Your task to perform on an android device: check out phone information Image 0: 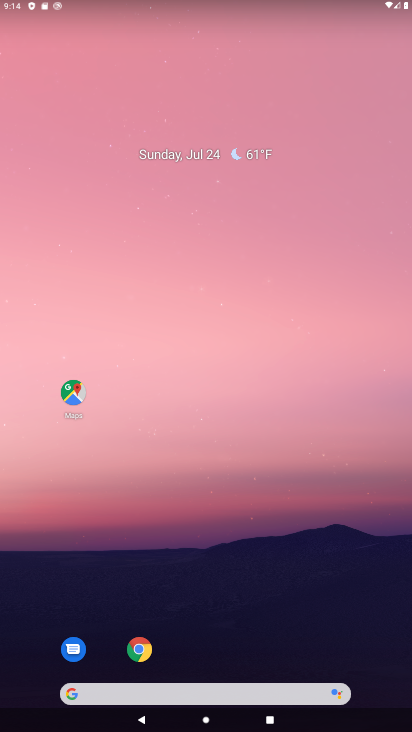
Step 0: drag from (281, 641) to (150, 2)
Your task to perform on an android device: check out phone information Image 1: 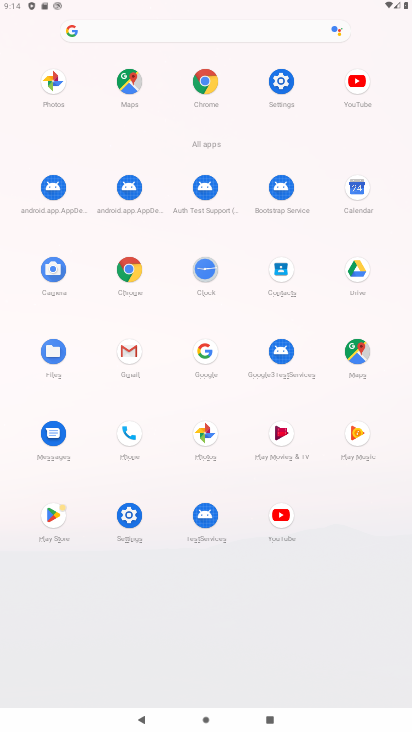
Step 1: click (132, 437)
Your task to perform on an android device: check out phone information Image 2: 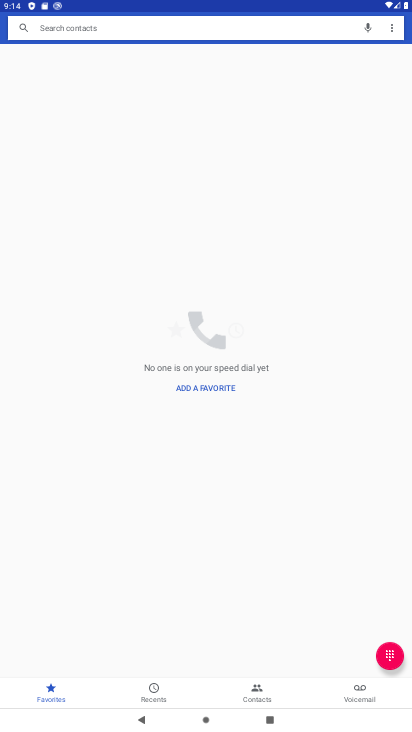
Step 2: press home button
Your task to perform on an android device: check out phone information Image 3: 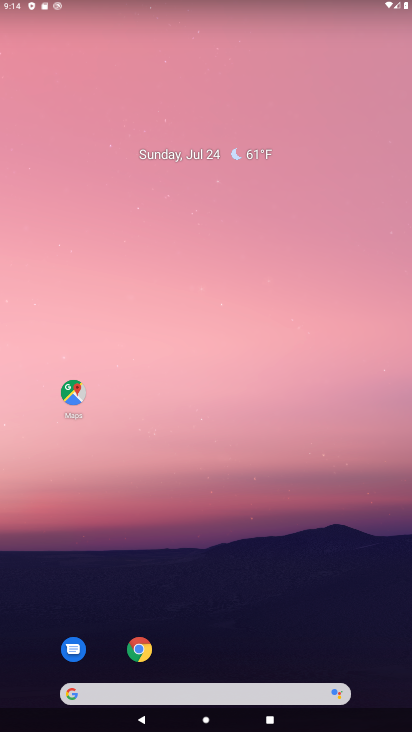
Step 3: drag from (264, 616) to (262, 78)
Your task to perform on an android device: check out phone information Image 4: 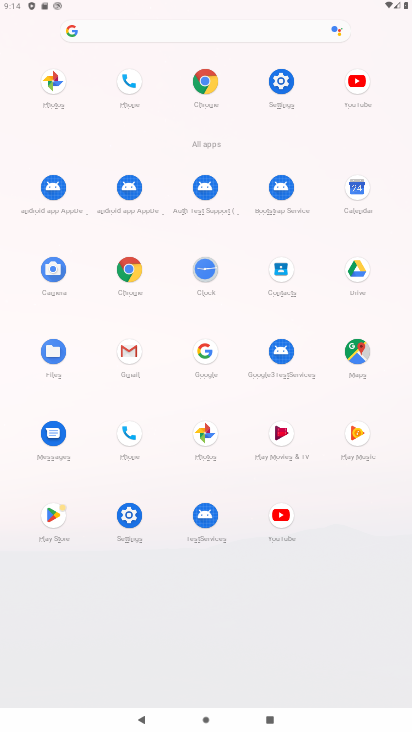
Step 4: click (139, 435)
Your task to perform on an android device: check out phone information Image 5: 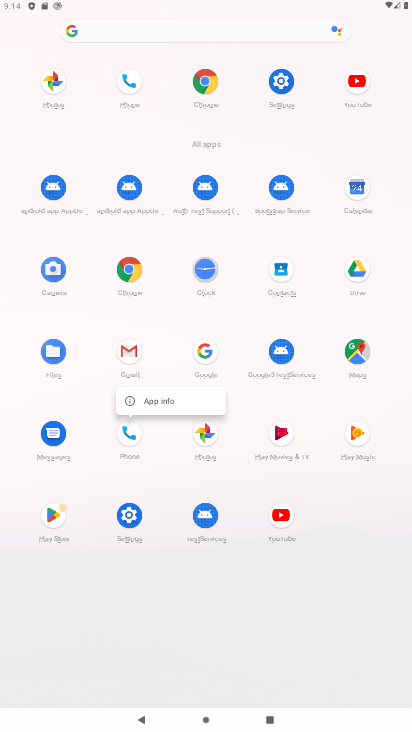
Step 5: click (157, 395)
Your task to perform on an android device: check out phone information Image 6: 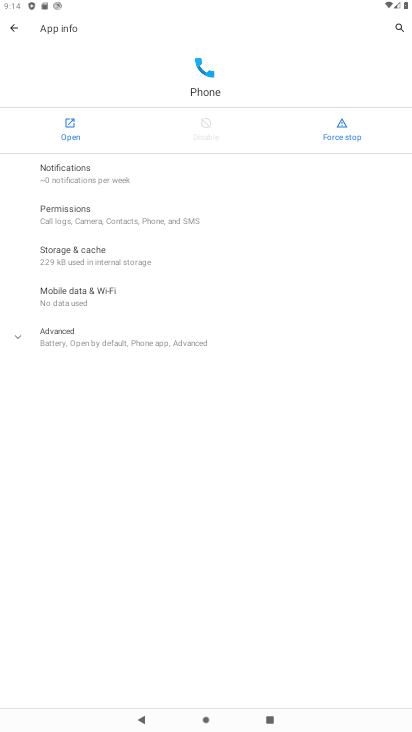
Step 6: task complete